Your task to perform on an android device: Open the calendar and show me this week's events Image 0: 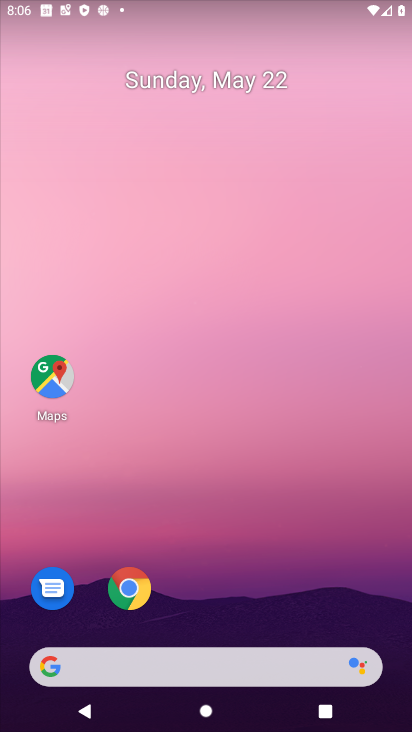
Step 0: drag from (274, 543) to (215, 175)
Your task to perform on an android device: Open the calendar and show me this week's events Image 1: 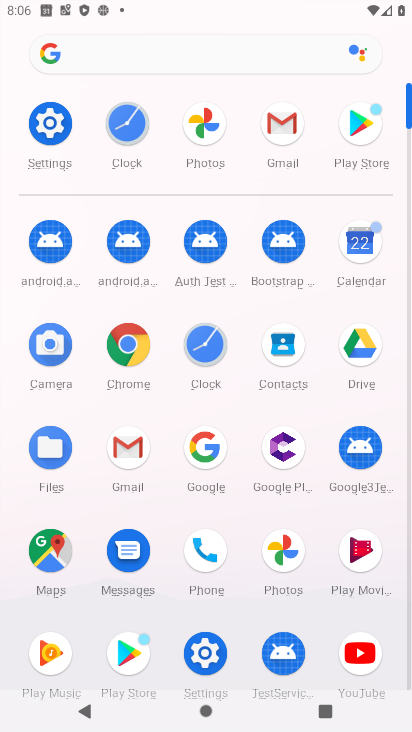
Step 1: click (355, 238)
Your task to perform on an android device: Open the calendar and show me this week's events Image 2: 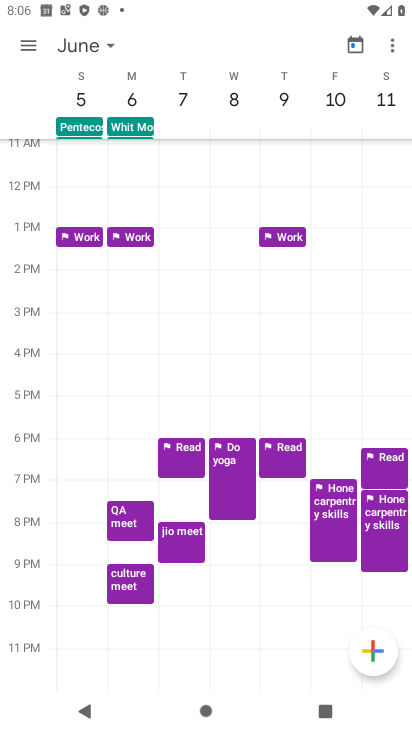
Step 2: click (107, 47)
Your task to perform on an android device: Open the calendar and show me this week's events Image 3: 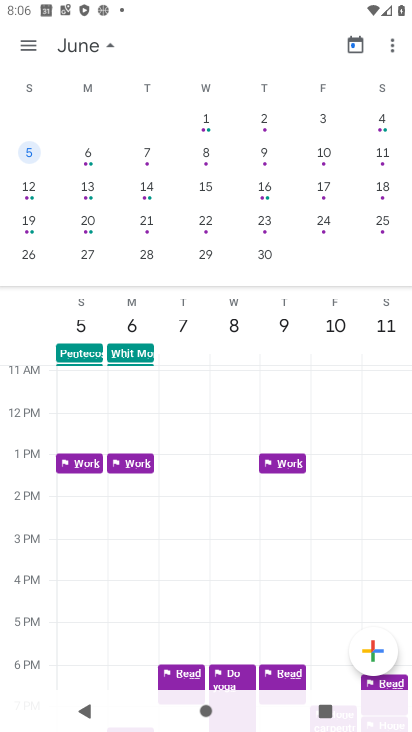
Step 3: drag from (53, 171) to (383, 195)
Your task to perform on an android device: Open the calendar and show me this week's events Image 4: 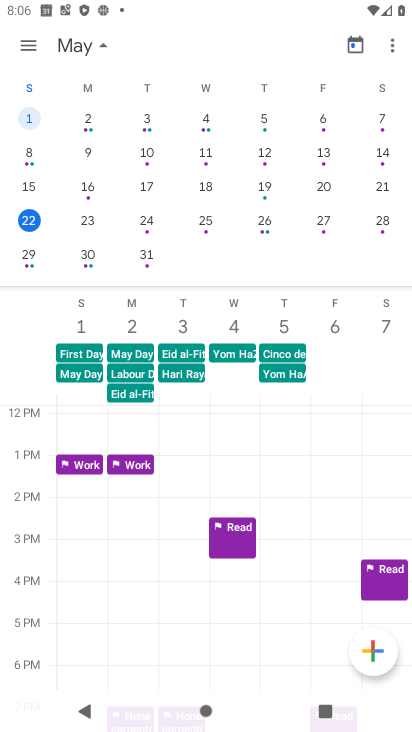
Step 4: click (96, 215)
Your task to perform on an android device: Open the calendar and show me this week's events Image 5: 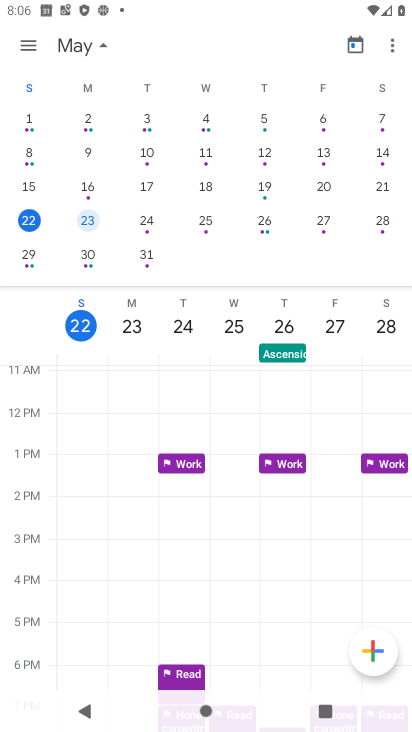
Step 5: task complete